Your task to perform on an android device: Open battery settings Image 0: 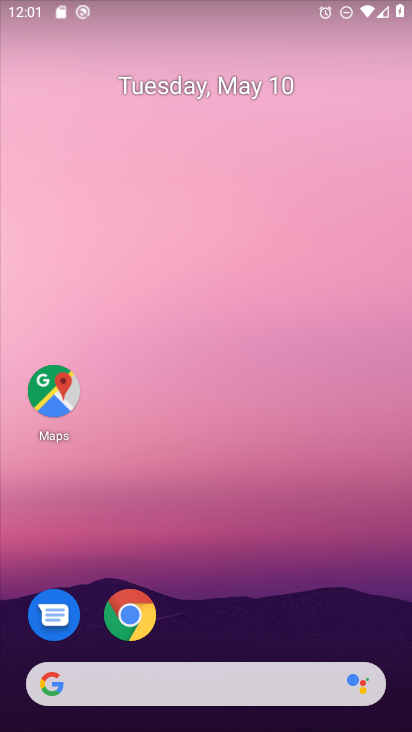
Step 0: drag from (228, 714) to (374, 265)
Your task to perform on an android device: Open battery settings Image 1: 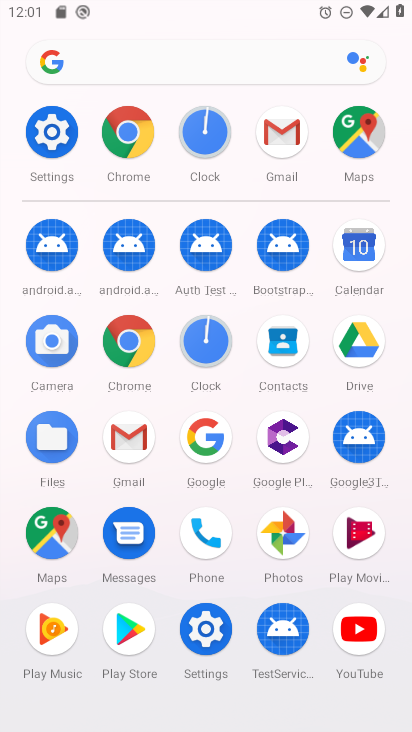
Step 1: click (204, 611)
Your task to perform on an android device: Open battery settings Image 2: 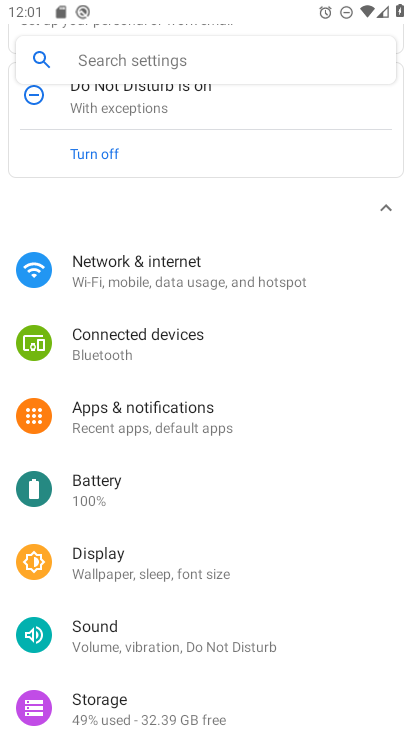
Step 2: click (147, 501)
Your task to perform on an android device: Open battery settings Image 3: 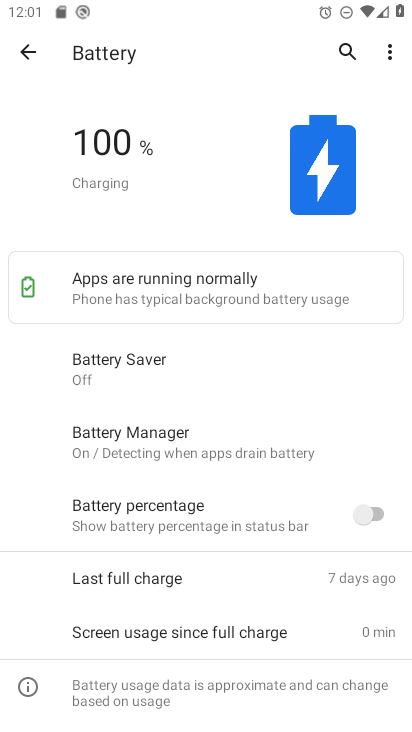
Step 3: task complete